Your task to perform on an android device: change the clock display to show seconds Image 0: 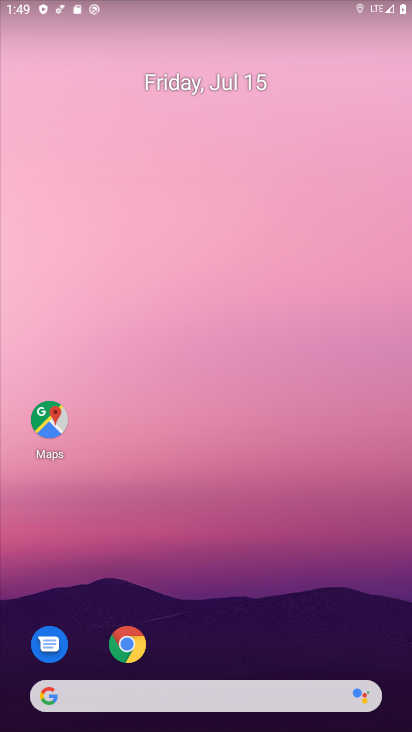
Step 0: drag from (351, 616) to (205, 21)
Your task to perform on an android device: change the clock display to show seconds Image 1: 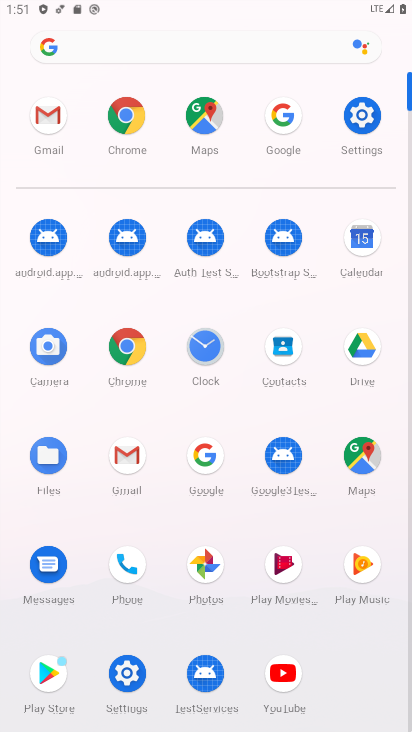
Step 1: click (207, 333)
Your task to perform on an android device: change the clock display to show seconds Image 2: 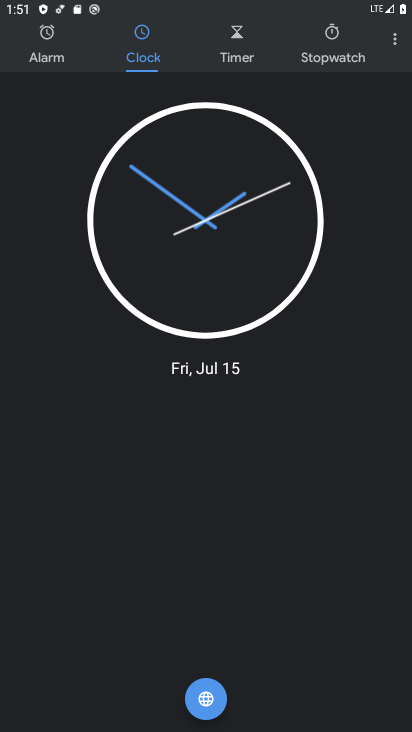
Step 2: click (389, 41)
Your task to perform on an android device: change the clock display to show seconds Image 3: 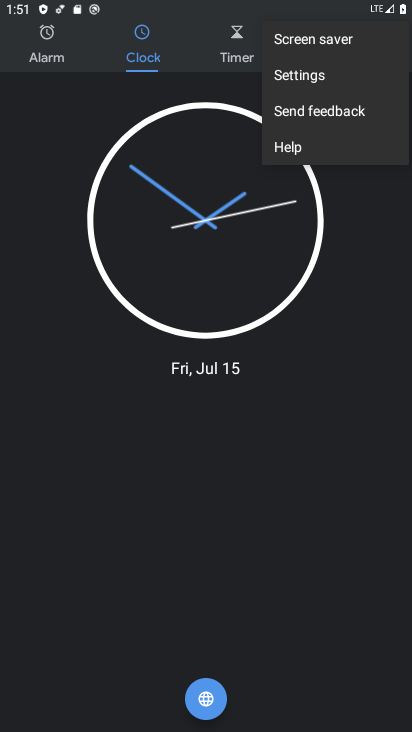
Step 3: click (367, 66)
Your task to perform on an android device: change the clock display to show seconds Image 4: 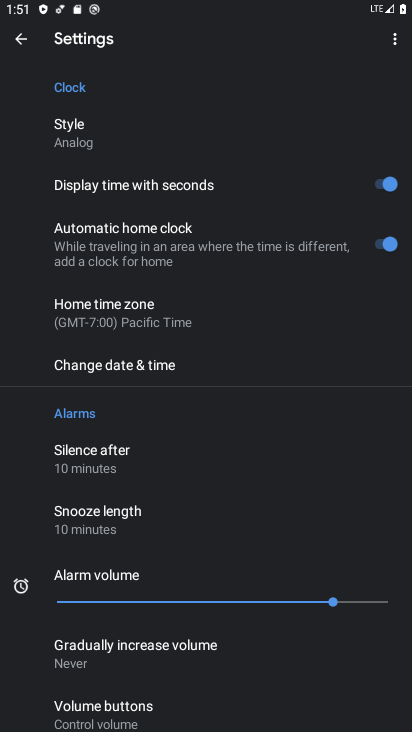
Step 4: click (365, 175)
Your task to perform on an android device: change the clock display to show seconds Image 5: 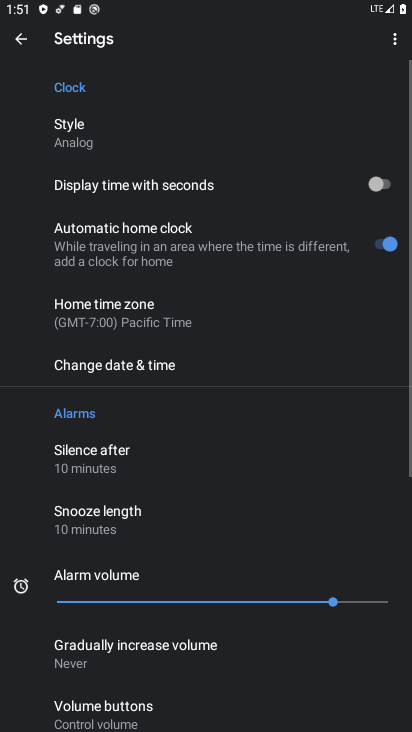
Step 5: task complete